Your task to perform on an android device: open app "Adobe Acrobat Reader: Edit PDF" (install if not already installed) Image 0: 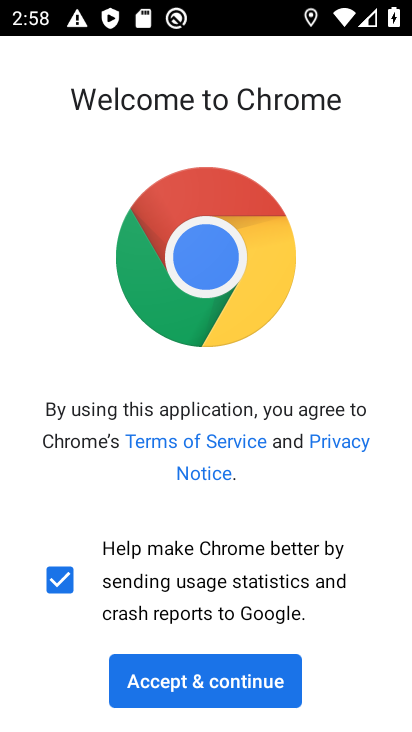
Step 0: press home button
Your task to perform on an android device: open app "Adobe Acrobat Reader: Edit PDF" (install if not already installed) Image 1: 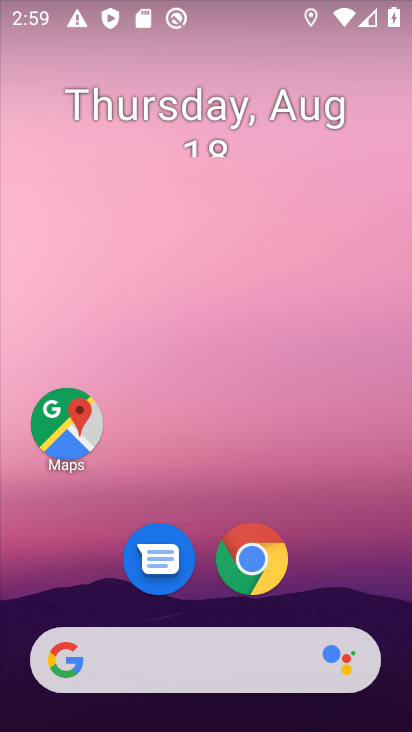
Step 1: drag from (357, 591) to (173, 7)
Your task to perform on an android device: open app "Adobe Acrobat Reader: Edit PDF" (install if not already installed) Image 2: 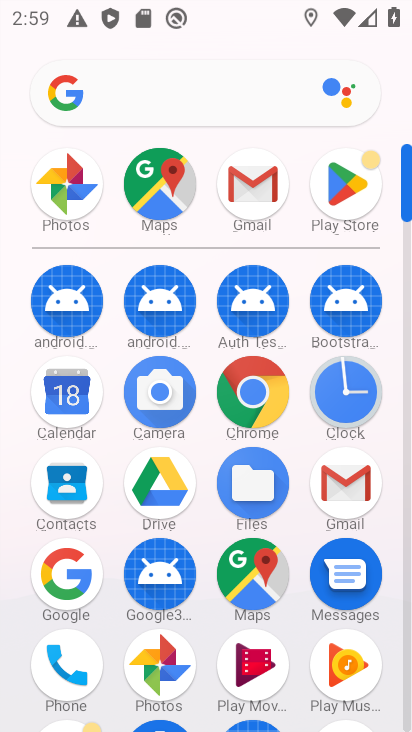
Step 2: click (339, 184)
Your task to perform on an android device: open app "Adobe Acrobat Reader: Edit PDF" (install if not already installed) Image 3: 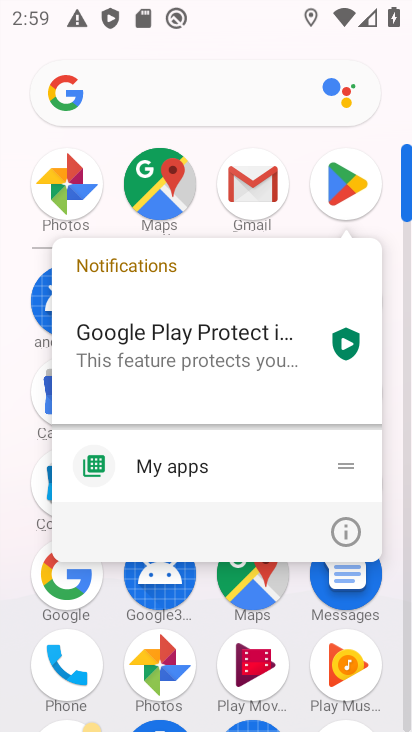
Step 3: click (361, 194)
Your task to perform on an android device: open app "Adobe Acrobat Reader: Edit PDF" (install if not already installed) Image 4: 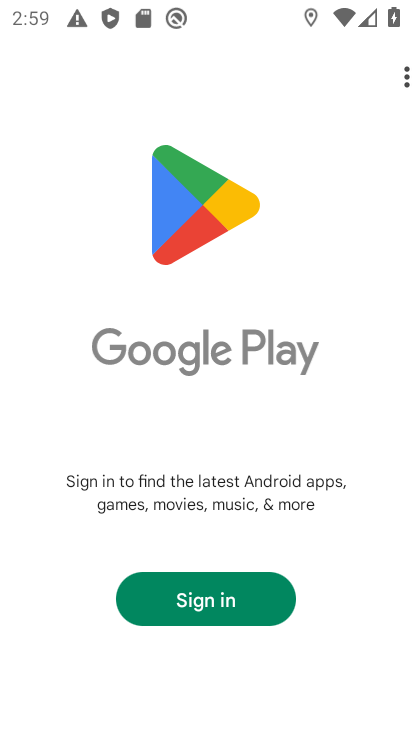
Step 4: click (176, 590)
Your task to perform on an android device: open app "Adobe Acrobat Reader: Edit PDF" (install if not already installed) Image 5: 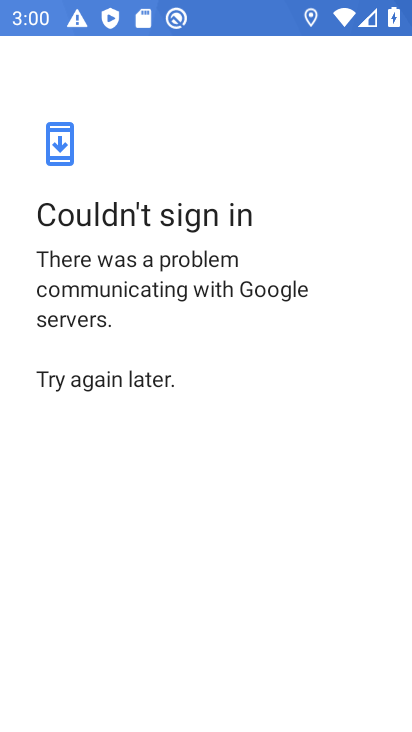
Step 5: task complete